Your task to perform on an android device: What's the weather going to be tomorrow? Image 0: 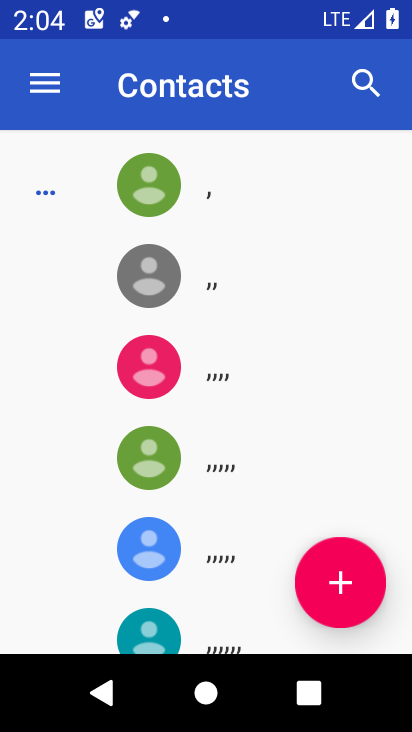
Step 0: press home button
Your task to perform on an android device: What's the weather going to be tomorrow? Image 1: 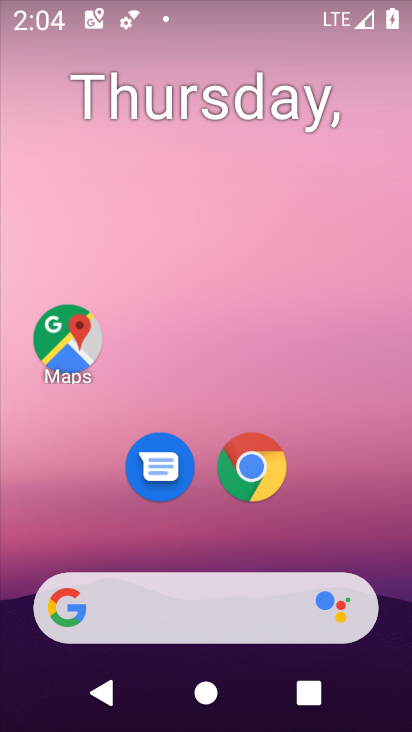
Step 1: drag from (200, 546) to (128, 30)
Your task to perform on an android device: What's the weather going to be tomorrow? Image 2: 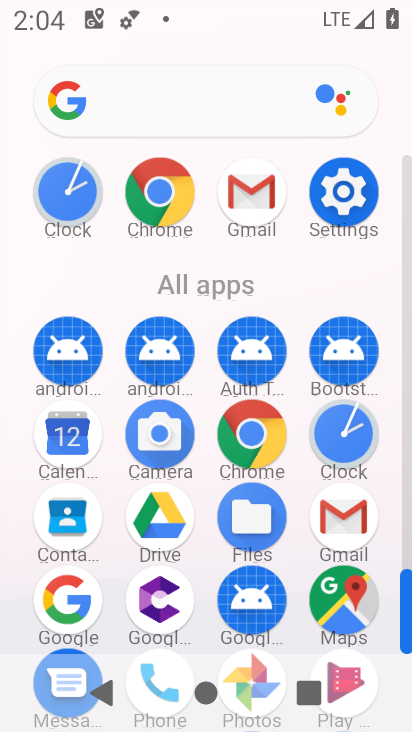
Step 2: click (72, 595)
Your task to perform on an android device: What's the weather going to be tomorrow? Image 3: 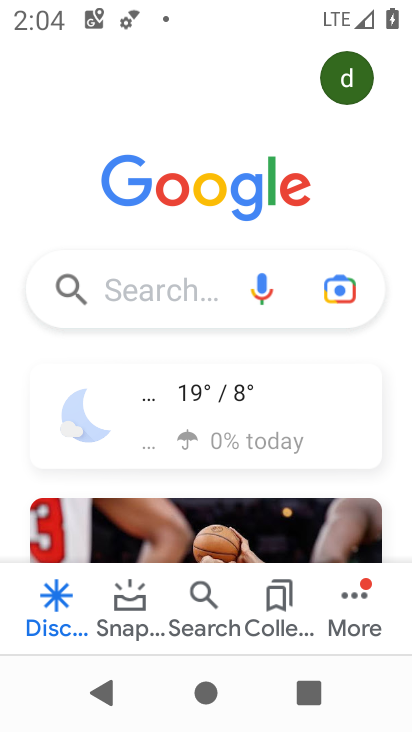
Step 3: click (167, 282)
Your task to perform on an android device: What's the weather going to be tomorrow? Image 4: 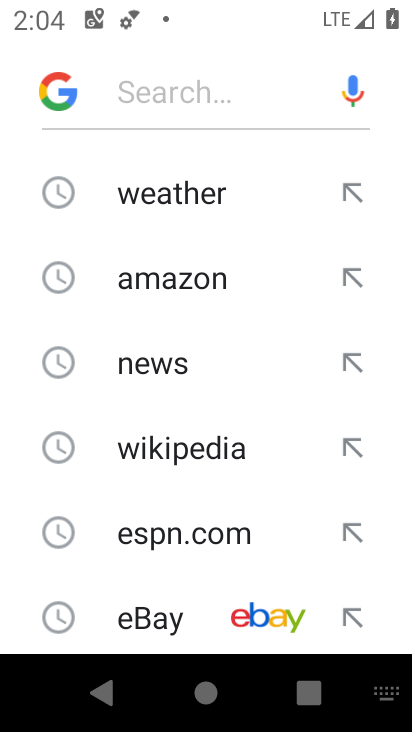
Step 4: click (140, 207)
Your task to perform on an android device: What's the weather going to be tomorrow? Image 5: 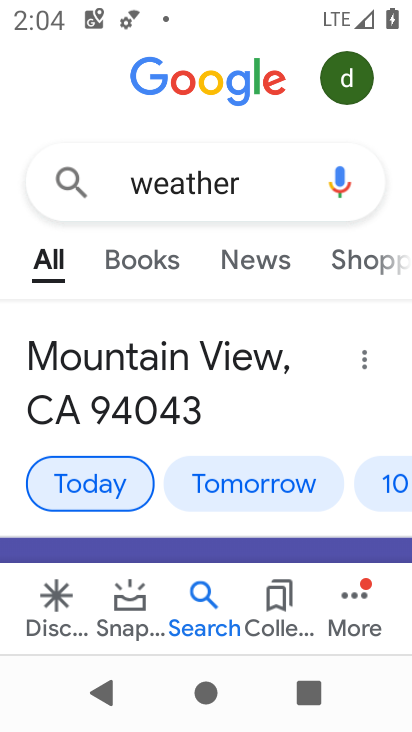
Step 5: click (245, 465)
Your task to perform on an android device: What's the weather going to be tomorrow? Image 6: 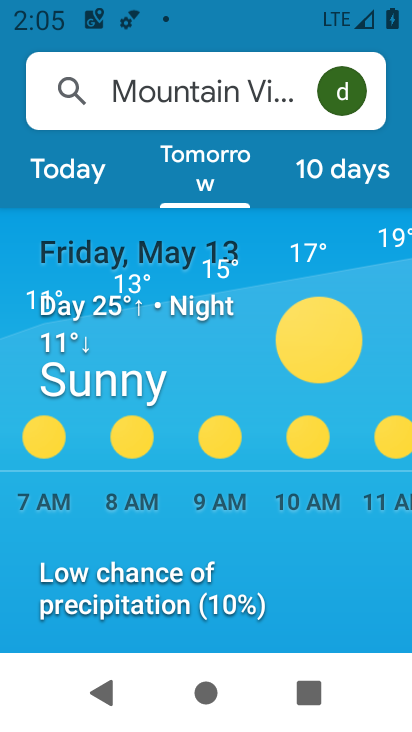
Step 6: task complete